Your task to perform on an android device: Go to battery settings Image 0: 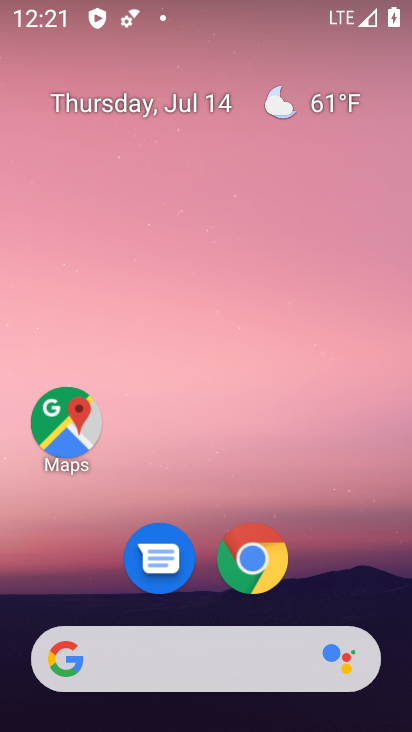
Step 0: drag from (154, 613) to (224, 111)
Your task to perform on an android device: Go to battery settings Image 1: 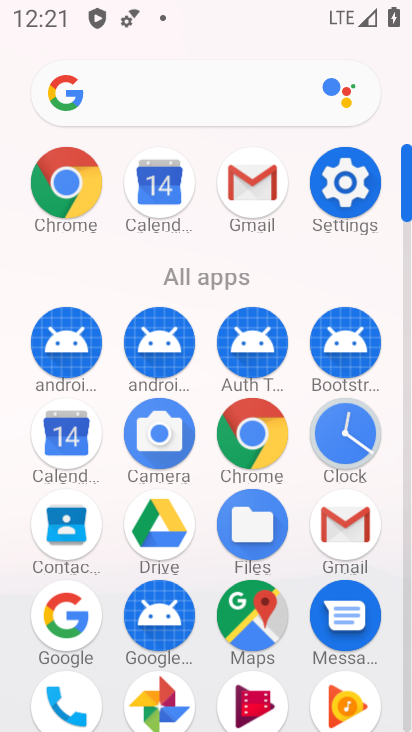
Step 1: click (354, 182)
Your task to perform on an android device: Go to battery settings Image 2: 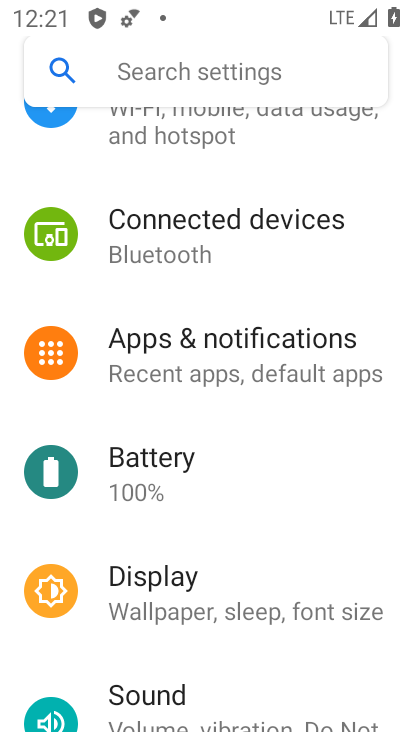
Step 2: click (140, 466)
Your task to perform on an android device: Go to battery settings Image 3: 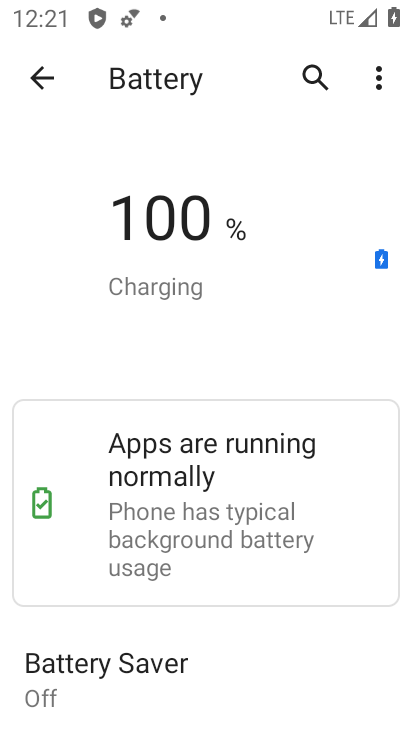
Step 3: task complete